Your task to perform on an android device: Open Chrome and go to settings Image 0: 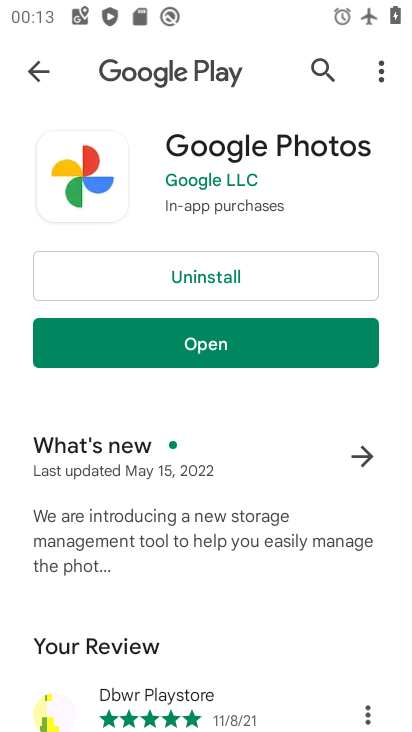
Step 0: press home button
Your task to perform on an android device: Open Chrome and go to settings Image 1: 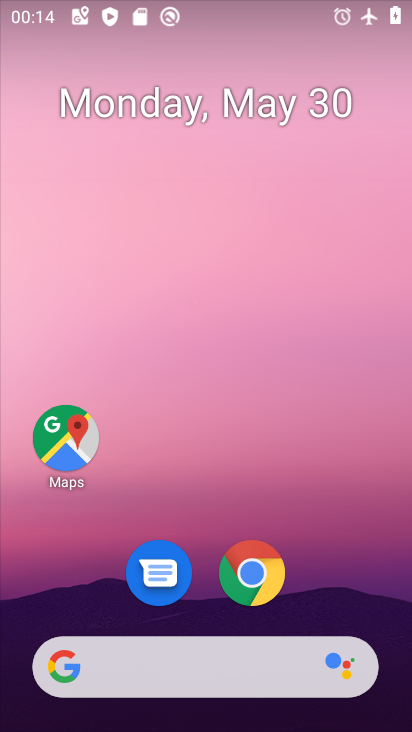
Step 1: click (277, 572)
Your task to perform on an android device: Open Chrome and go to settings Image 2: 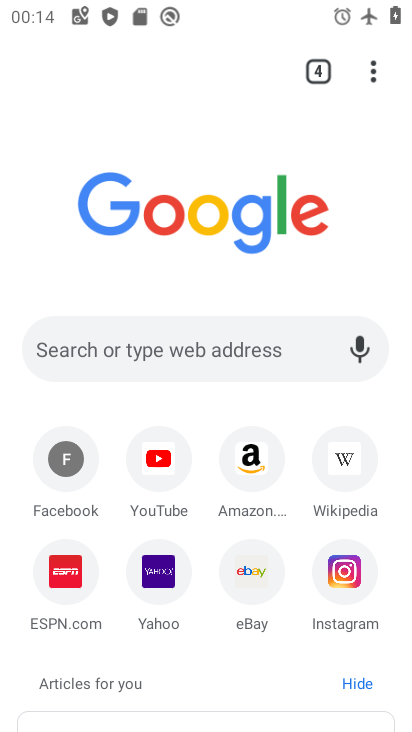
Step 2: click (367, 77)
Your task to perform on an android device: Open Chrome and go to settings Image 3: 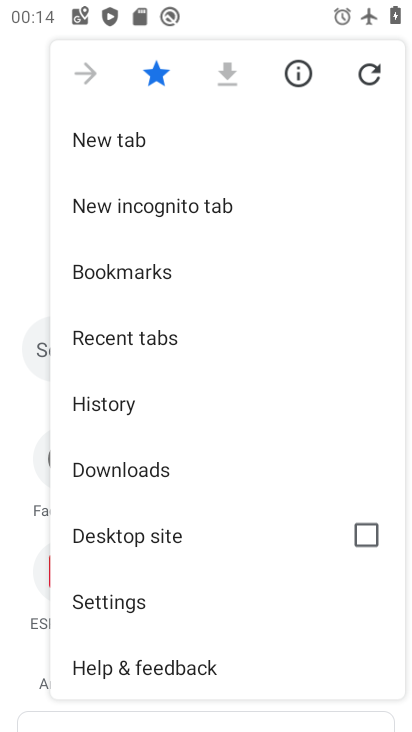
Step 3: click (234, 608)
Your task to perform on an android device: Open Chrome and go to settings Image 4: 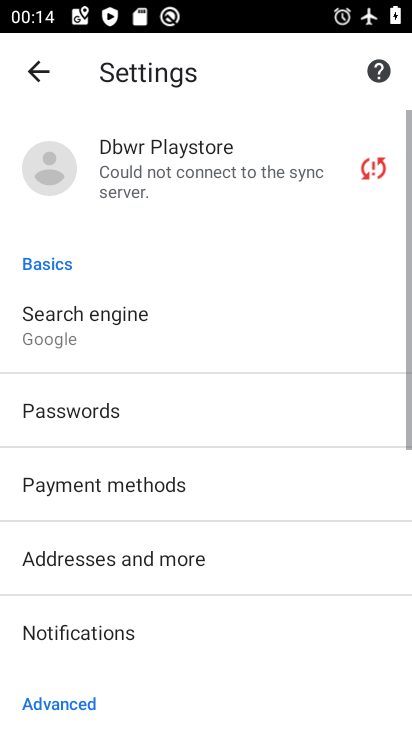
Step 4: task complete